Your task to perform on an android device: Open calendar and show me the second week of next month Image 0: 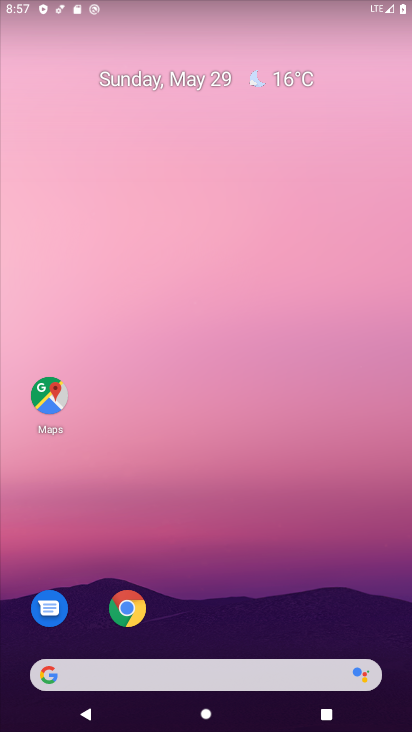
Step 0: drag from (193, 589) to (181, 1)
Your task to perform on an android device: Open calendar and show me the second week of next month Image 1: 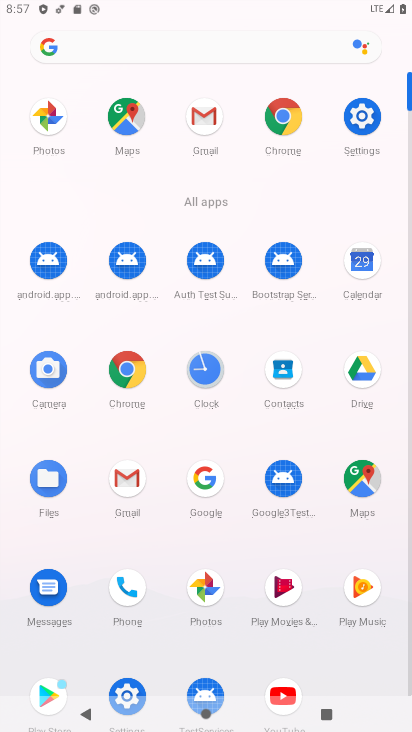
Step 1: click (359, 273)
Your task to perform on an android device: Open calendar and show me the second week of next month Image 2: 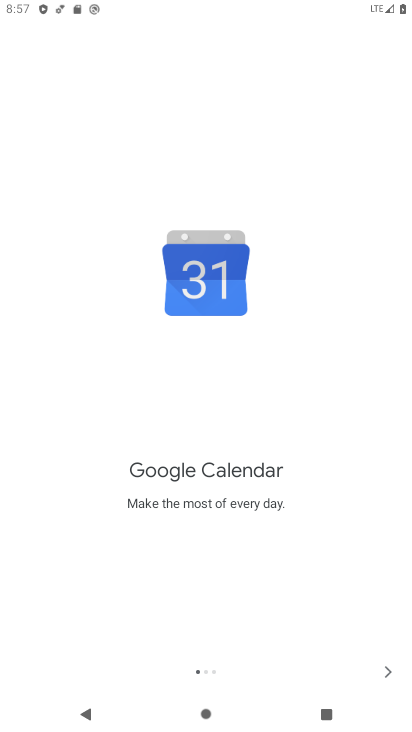
Step 2: click (387, 671)
Your task to perform on an android device: Open calendar and show me the second week of next month Image 3: 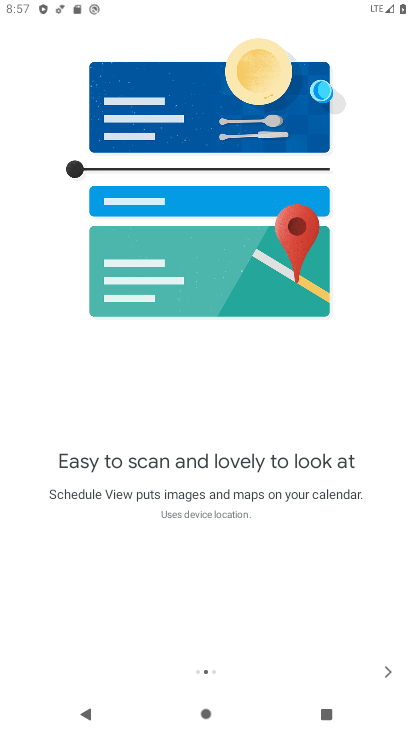
Step 3: click (387, 671)
Your task to perform on an android device: Open calendar and show me the second week of next month Image 4: 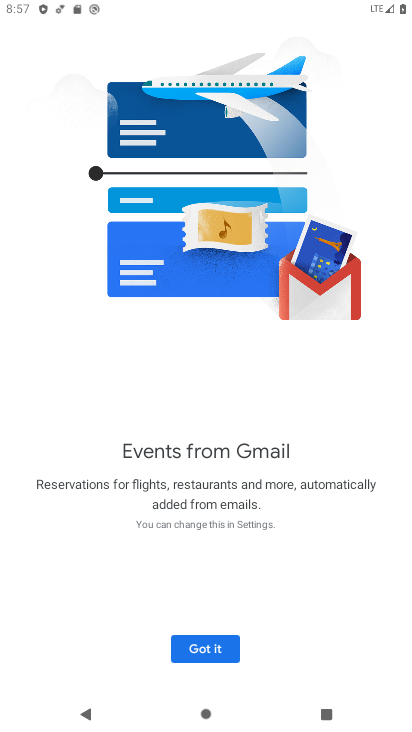
Step 4: click (209, 642)
Your task to perform on an android device: Open calendar and show me the second week of next month Image 5: 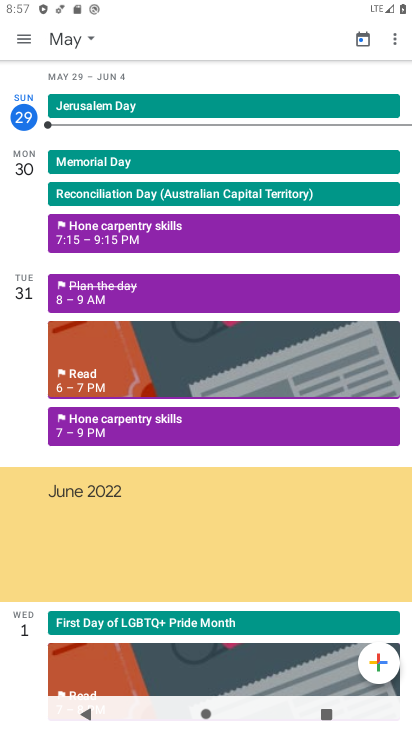
Step 5: click (20, 34)
Your task to perform on an android device: Open calendar and show me the second week of next month Image 6: 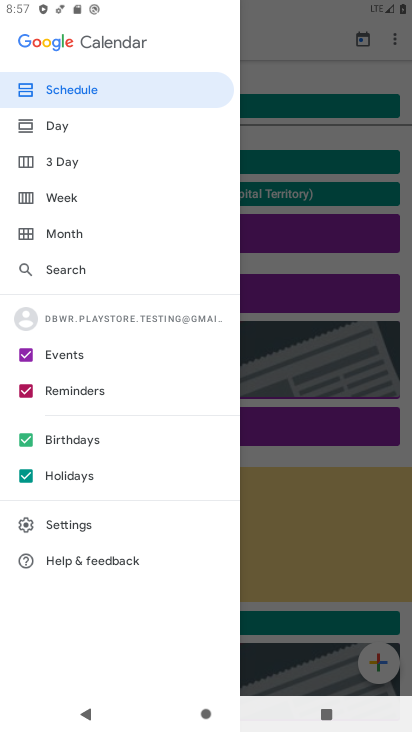
Step 6: click (72, 206)
Your task to perform on an android device: Open calendar and show me the second week of next month Image 7: 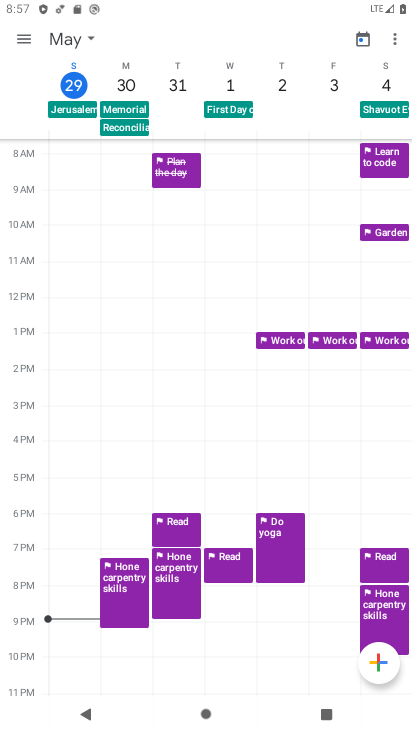
Step 7: click (82, 46)
Your task to perform on an android device: Open calendar and show me the second week of next month Image 8: 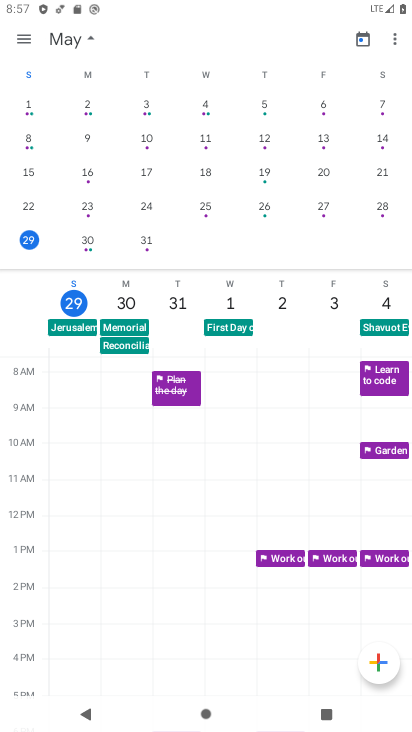
Step 8: drag from (337, 190) to (7, 147)
Your task to perform on an android device: Open calendar and show me the second week of next month Image 9: 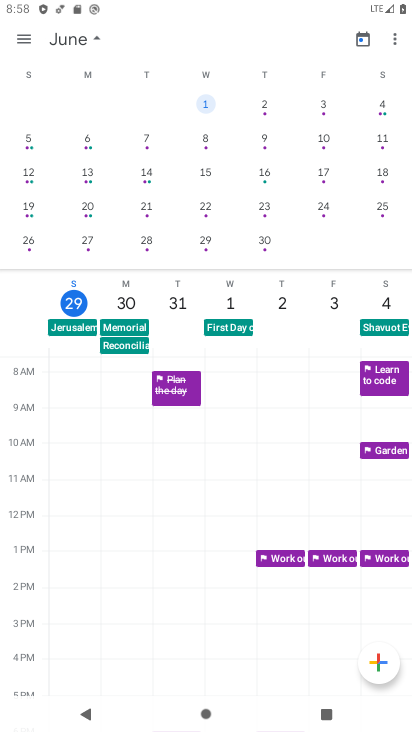
Step 9: click (31, 174)
Your task to perform on an android device: Open calendar and show me the second week of next month Image 10: 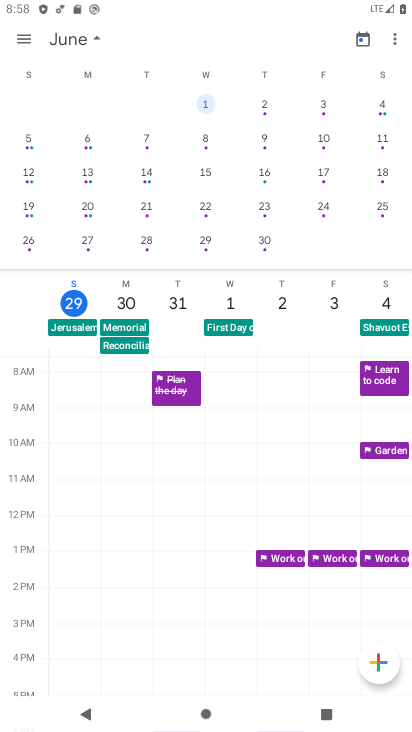
Step 10: click (31, 174)
Your task to perform on an android device: Open calendar and show me the second week of next month Image 11: 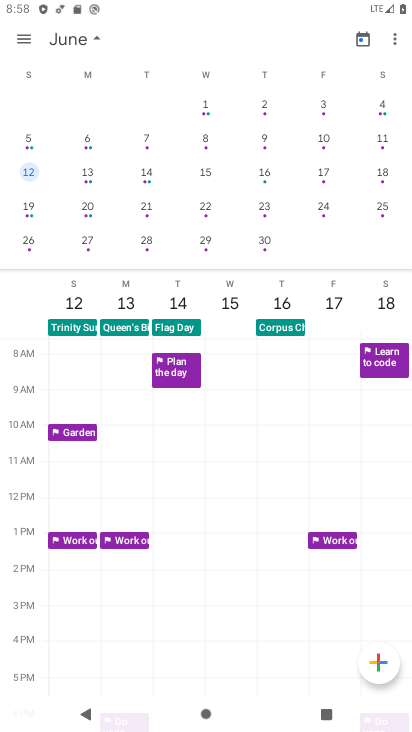
Step 11: task complete